Your task to perform on an android device: Go to Yahoo.com Image 0: 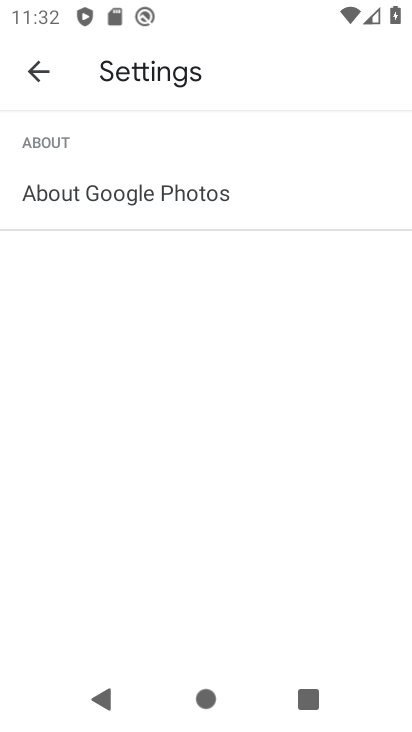
Step 0: drag from (356, 562) to (398, 232)
Your task to perform on an android device: Go to Yahoo.com Image 1: 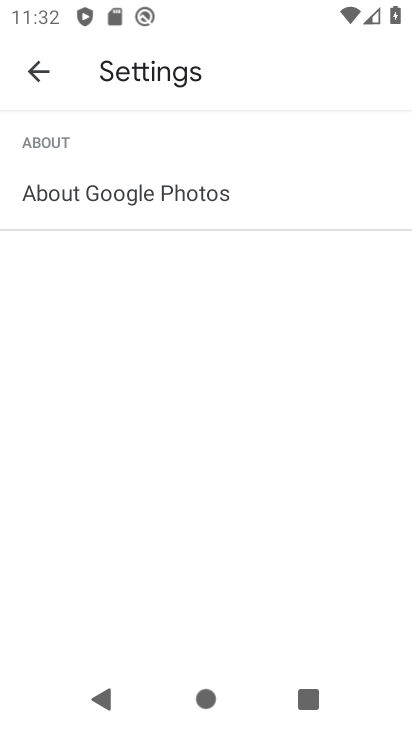
Step 1: press home button
Your task to perform on an android device: Go to Yahoo.com Image 2: 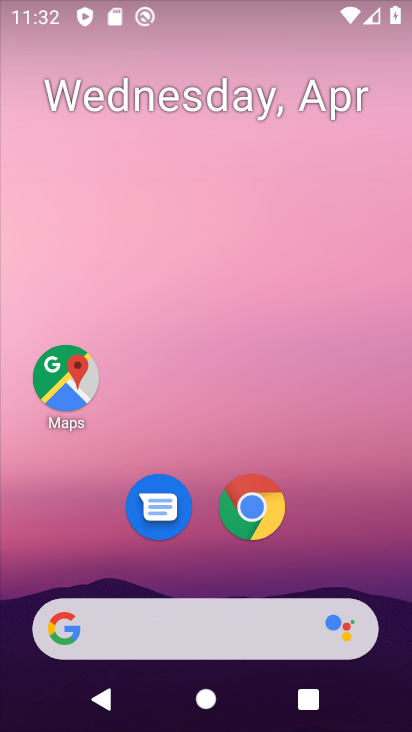
Step 2: drag from (335, 565) to (317, 93)
Your task to perform on an android device: Go to Yahoo.com Image 3: 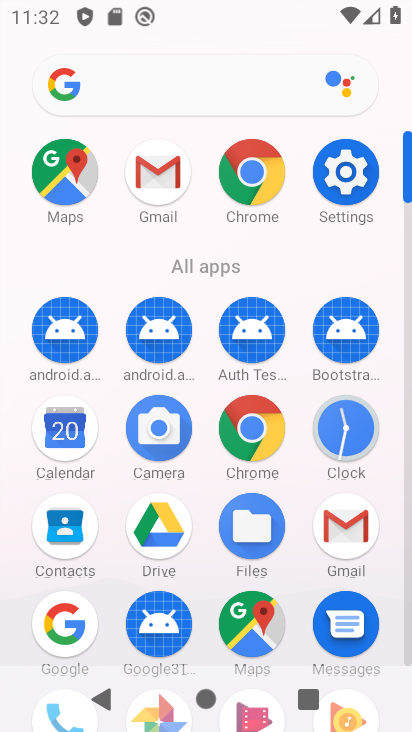
Step 3: click (227, 169)
Your task to perform on an android device: Go to Yahoo.com Image 4: 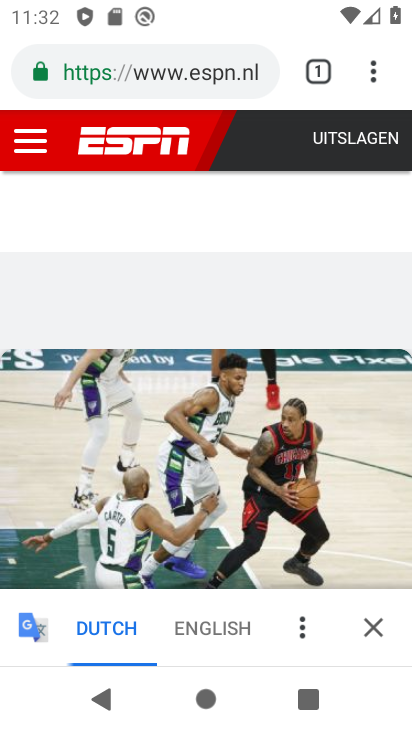
Step 4: press back button
Your task to perform on an android device: Go to Yahoo.com Image 5: 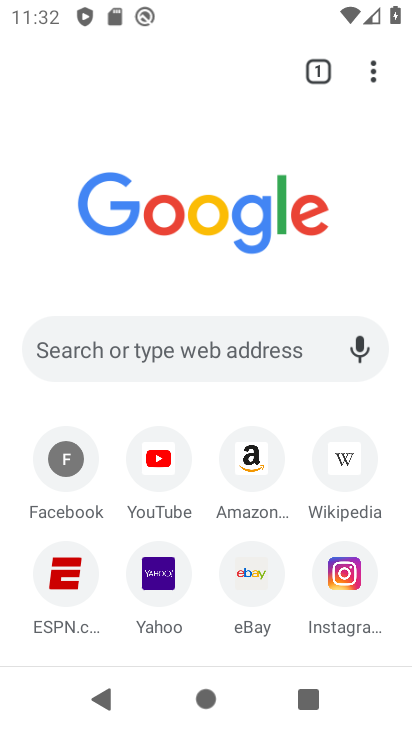
Step 5: click (144, 586)
Your task to perform on an android device: Go to Yahoo.com Image 6: 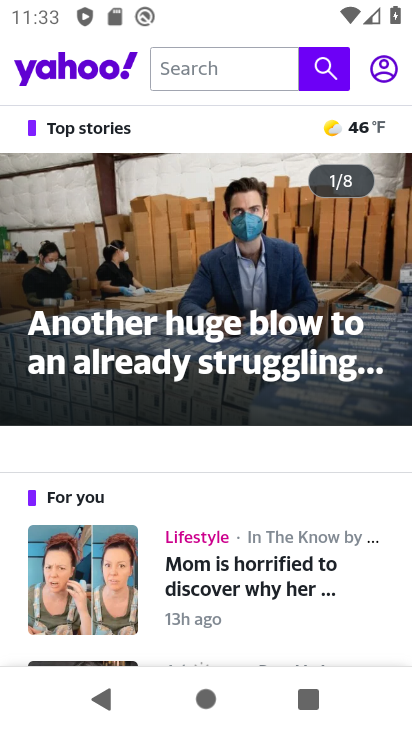
Step 6: task complete